Your task to perform on an android device: open app "Facebook" Image 0: 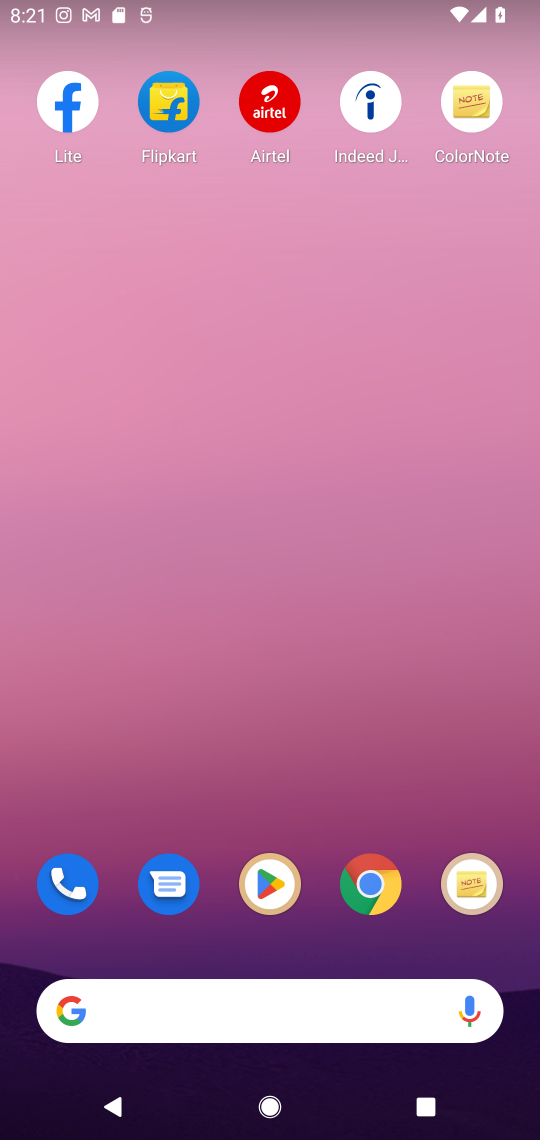
Step 0: drag from (207, 1014) to (189, 34)
Your task to perform on an android device: open app "Facebook" Image 1: 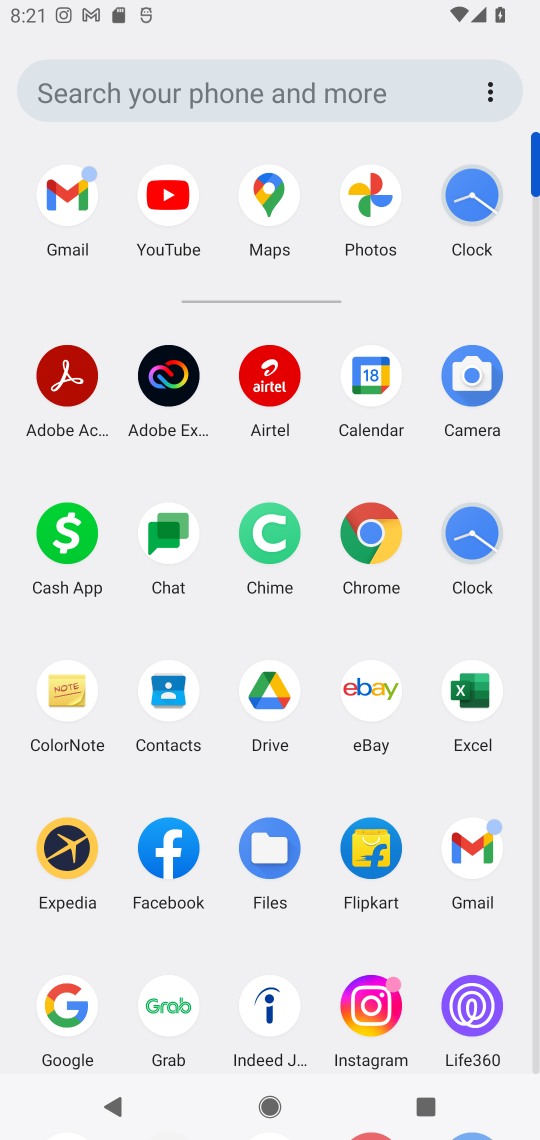
Step 1: drag from (217, 954) to (277, 474)
Your task to perform on an android device: open app "Facebook" Image 2: 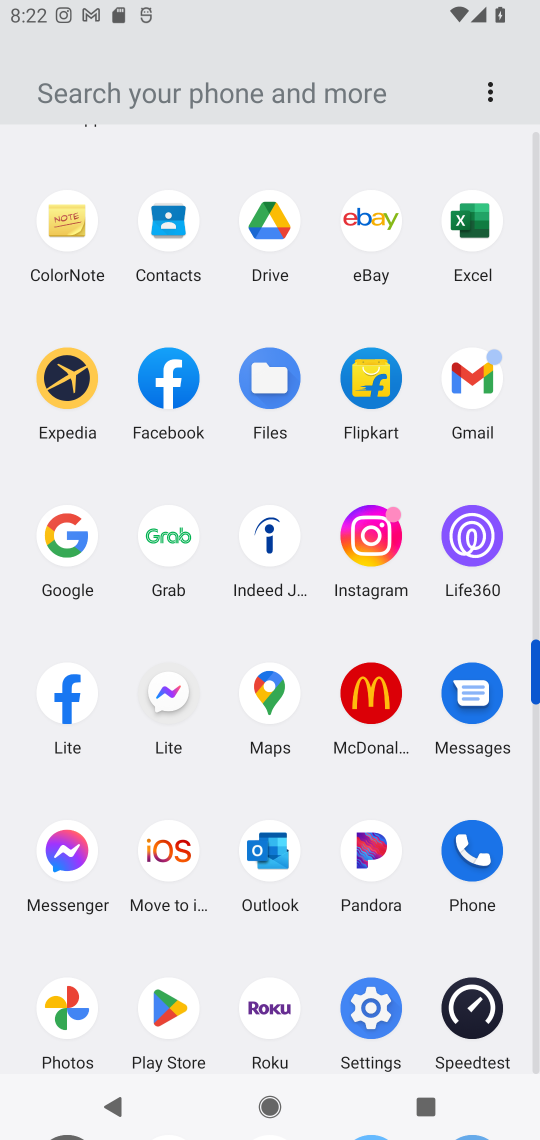
Step 2: click (179, 382)
Your task to perform on an android device: open app "Facebook" Image 3: 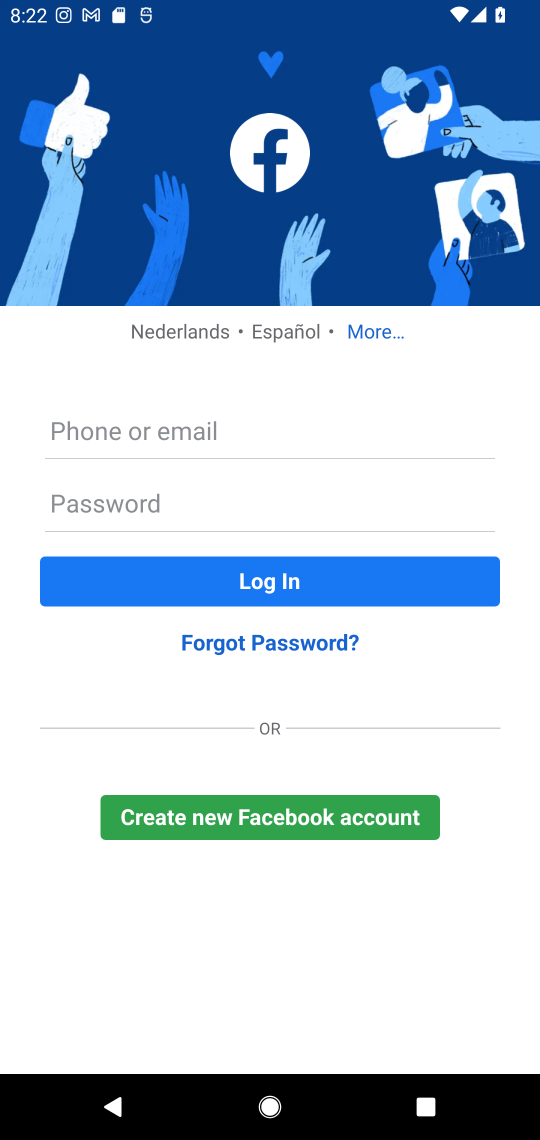
Step 3: task complete